Your task to perform on an android device: Go to Amazon Image 0: 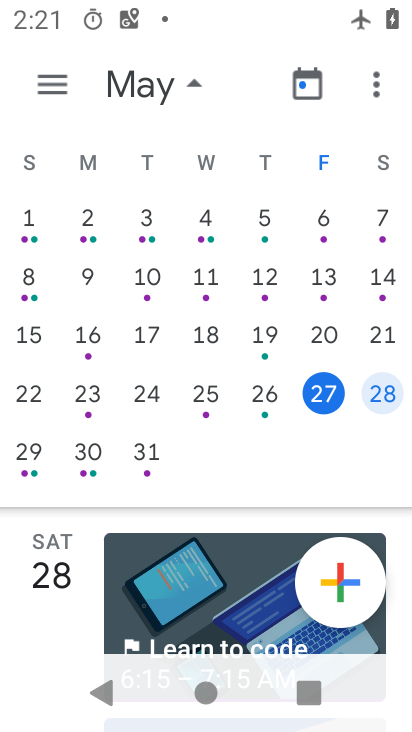
Step 0: press home button
Your task to perform on an android device: Go to Amazon Image 1: 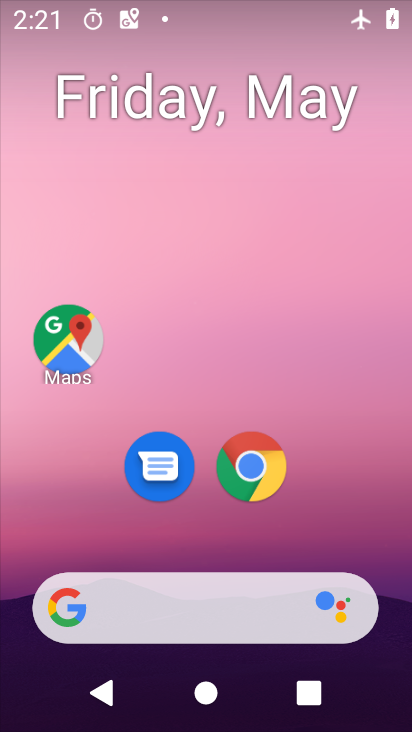
Step 1: drag from (311, 533) to (318, 63)
Your task to perform on an android device: Go to Amazon Image 2: 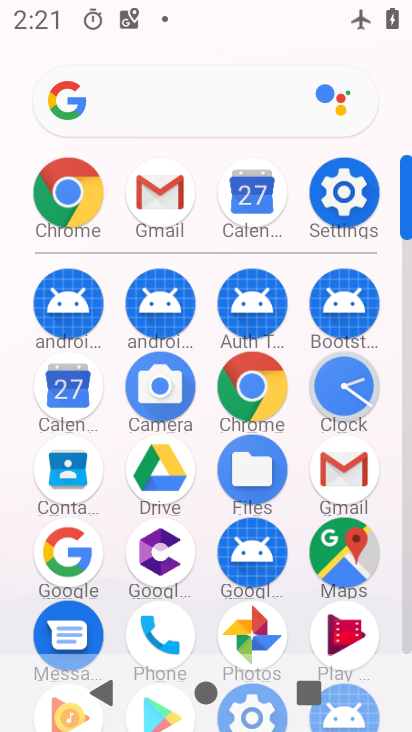
Step 2: click (52, 206)
Your task to perform on an android device: Go to Amazon Image 3: 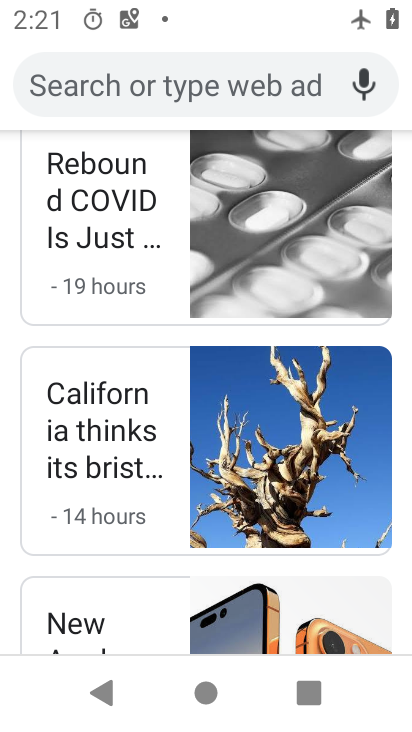
Step 3: drag from (82, 362) to (133, 619)
Your task to perform on an android device: Go to Amazon Image 4: 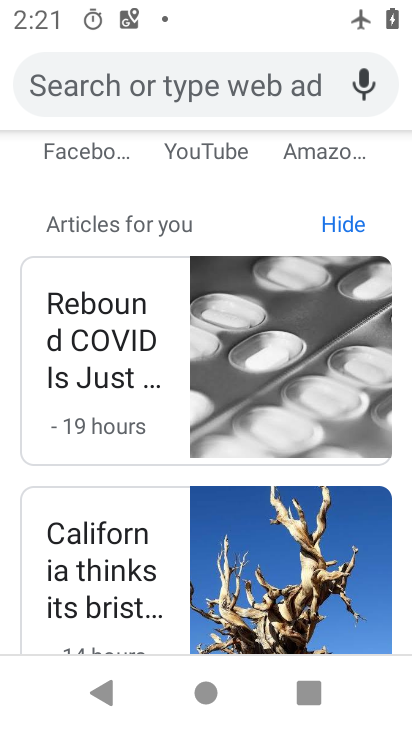
Step 4: drag from (122, 216) to (141, 586)
Your task to perform on an android device: Go to Amazon Image 5: 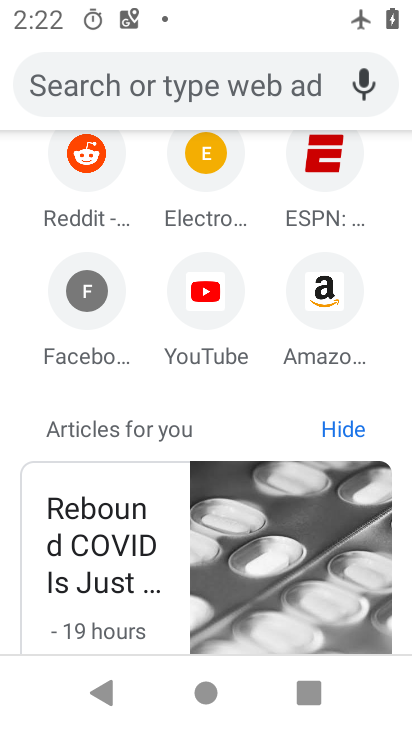
Step 5: drag from (169, 249) to (195, 598)
Your task to perform on an android device: Go to Amazon Image 6: 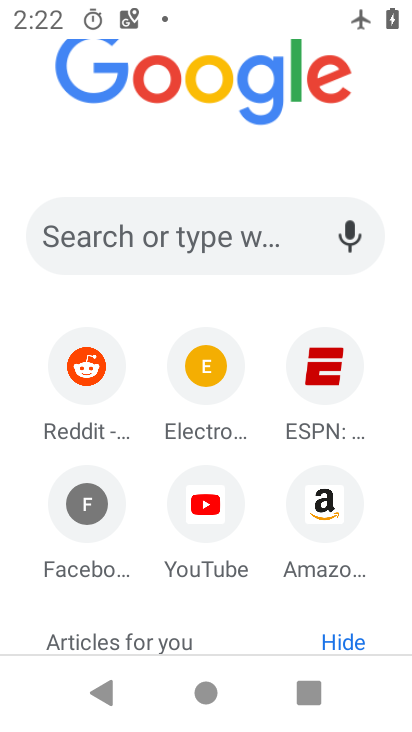
Step 6: drag from (365, 590) to (376, 328)
Your task to perform on an android device: Go to Amazon Image 7: 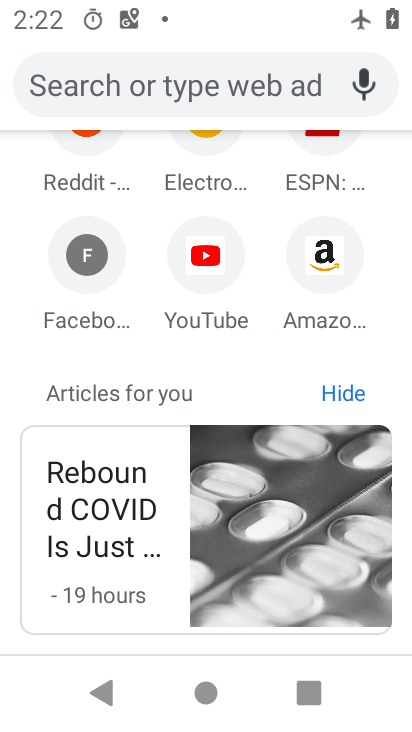
Step 7: drag from (378, 336) to (388, 719)
Your task to perform on an android device: Go to Amazon Image 8: 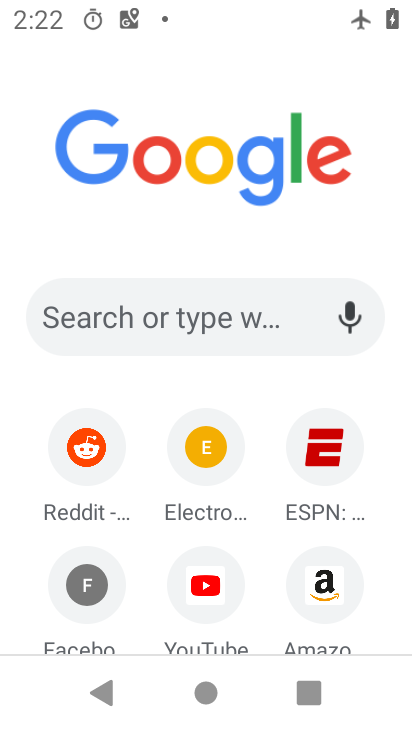
Step 8: click (161, 307)
Your task to perform on an android device: Go to Amazon Image 9: 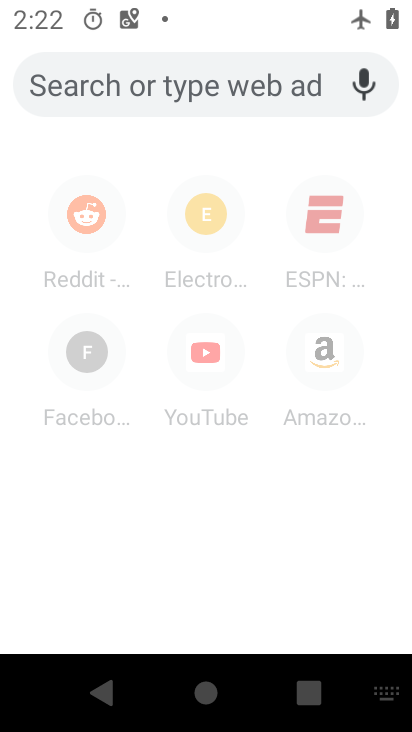
Step 9: type "amazon"
Your task to perform on an android device: Go to Amazon Image 10: 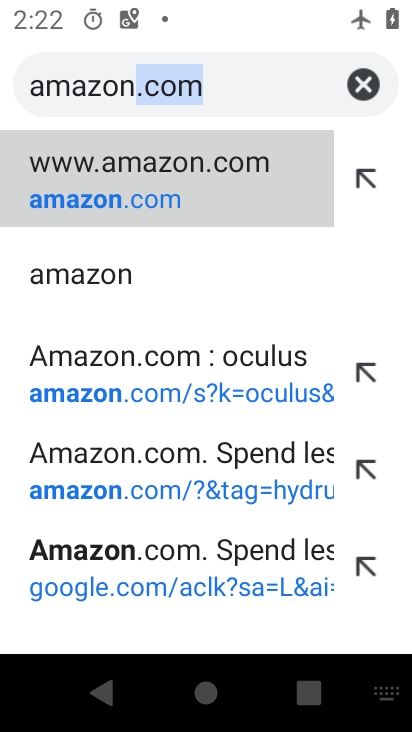
Step 10: click (194, 219)
Your task to perform on an android device: Go to Amazon Image 11: 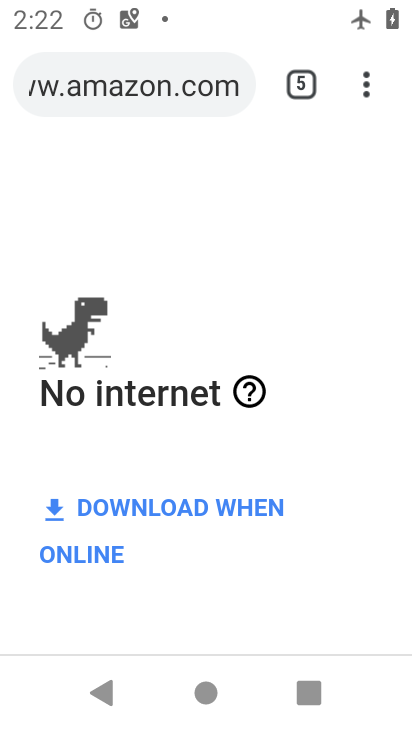
Step 11: task complete